Your task to perform on an android device: visit the assistant section in the google photos Image 0: 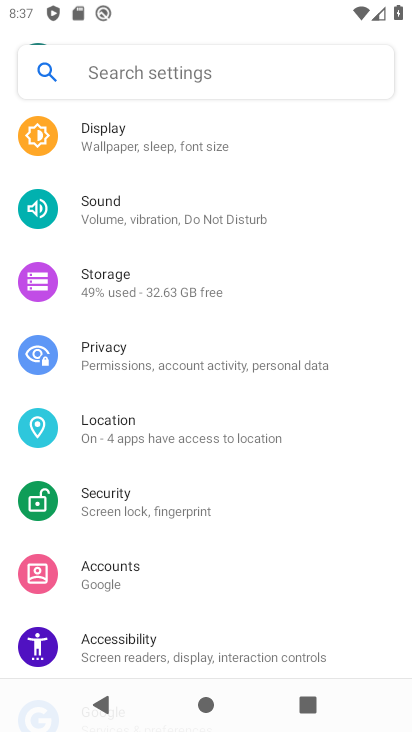
Step 0: press home button
Your task to perform on an android device: visit the assistant section in the google photos Image 1: 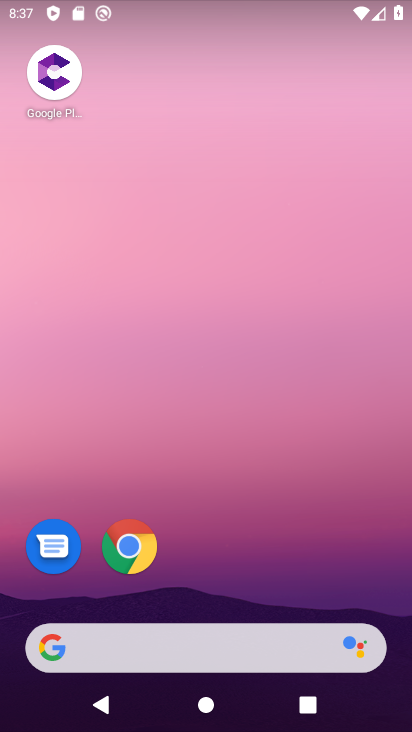
Step 1: drag from (365, 567) to (324, 92)
Your task to perform on an android device: visit the assistant section in the google photos Image 2: 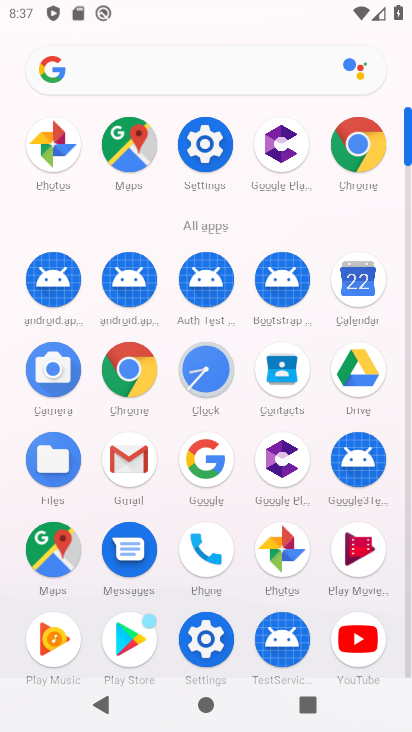
Step 2: click (282, 562)
Your task to perform on an android device: visit the assistant section in the google photos Image 3: 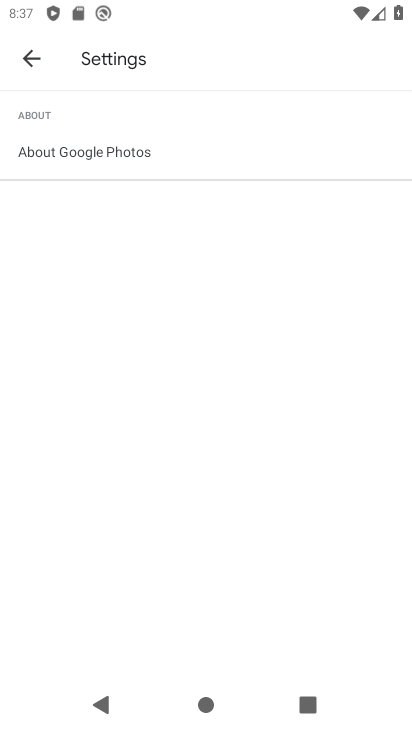
Step 3: click (30, 65)
Your task to perform on an android device: visit the assistant section in the google photos Image 4: 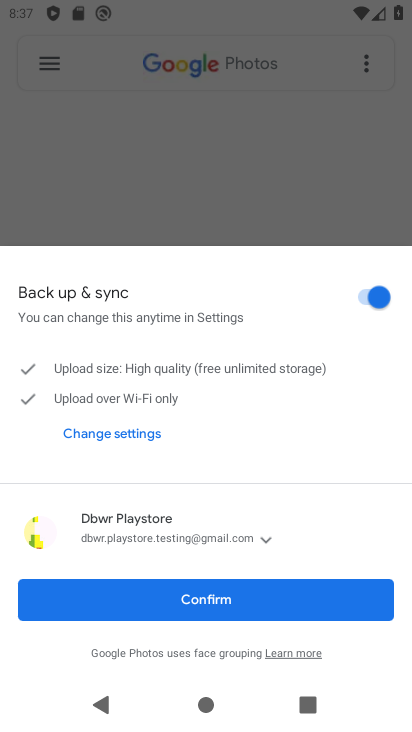
Step 4: click (296, 615)
Your task to perform on an android device: visit the assistant section in the google photos Image 5: 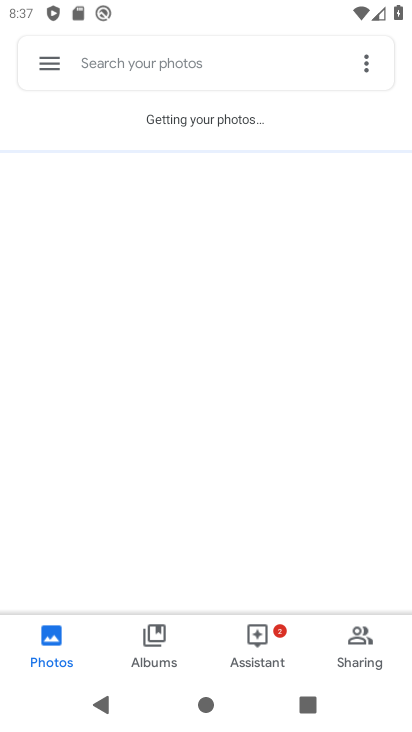
Step 5: click (272, 647)
Your task to perform on an android device: visit the assistant section in the google photos Image 6: 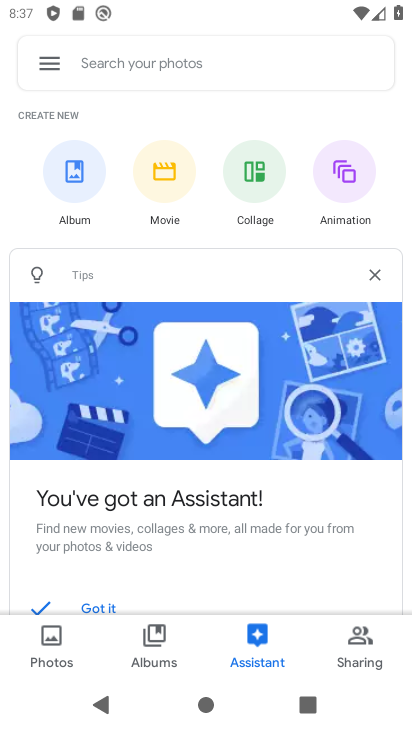
Step 6: task complete